Your task to perform on an android device: toggle sleep mode Image 0: 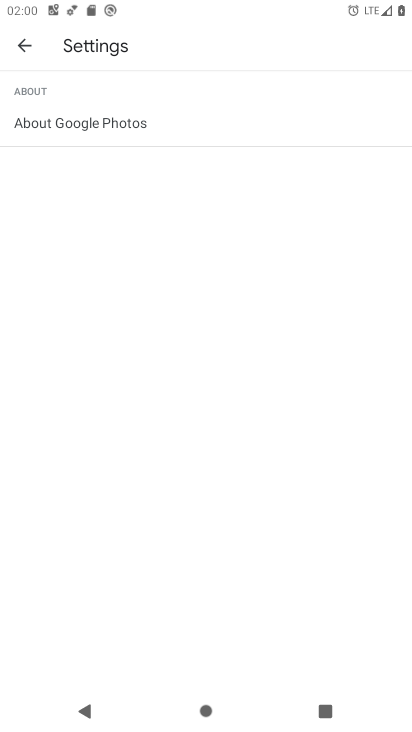
Step 0: press home button
Your task to perform on an android device: toggle sleep mode Image 1: 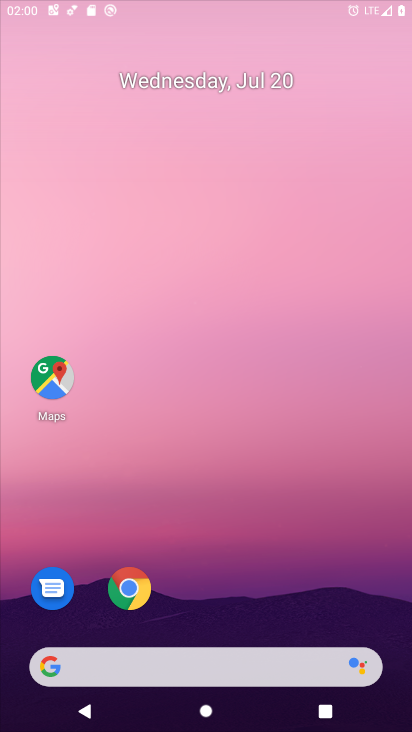
Step 1: drag from (211, 628) to (257, 263)
Your task to perform on an android device: toggle sleep mode Image 2: 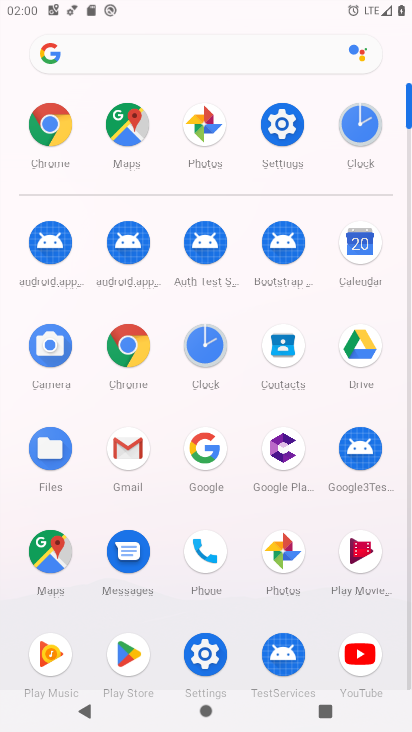
Step 2: click (286, 114)
Your task to perform on an android device: toggle sleep mode Image 3: 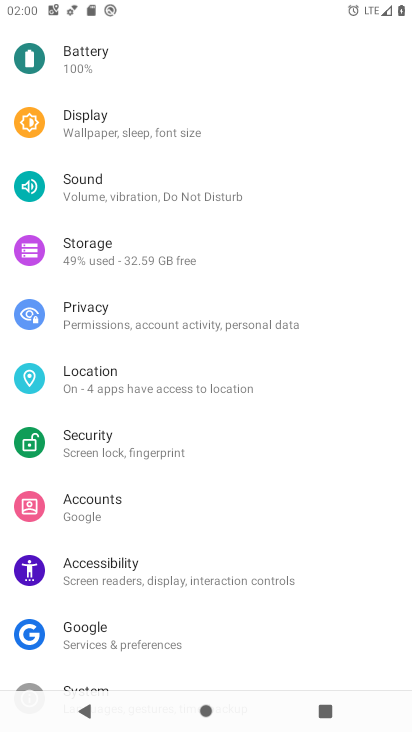
Step 3: task complete